Your task to perform on an android device: Open CNN.com Image 0: 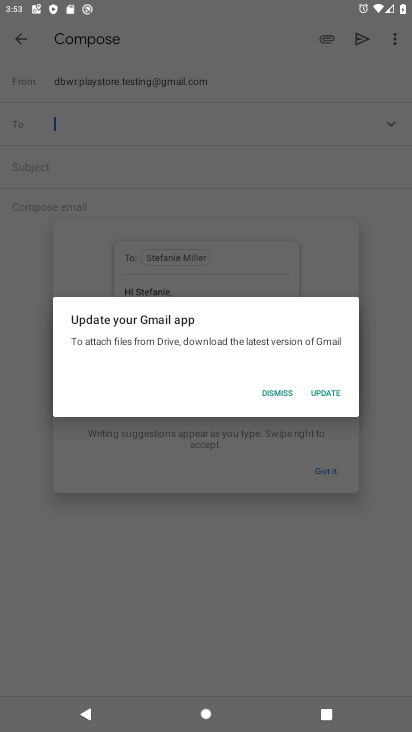
Step 0: press home button
Your task to perform on an android device: Open CNN.com Image 1: 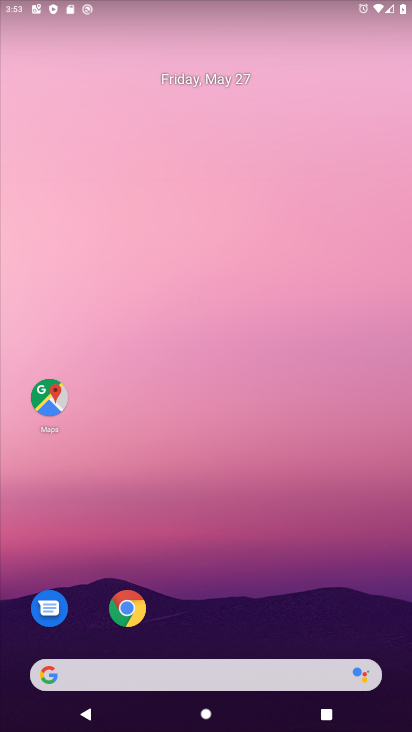
Step 1: drag from (187, 661) to (190, 435)
Your task to perform on an android device: Open CNN.com Image 2: 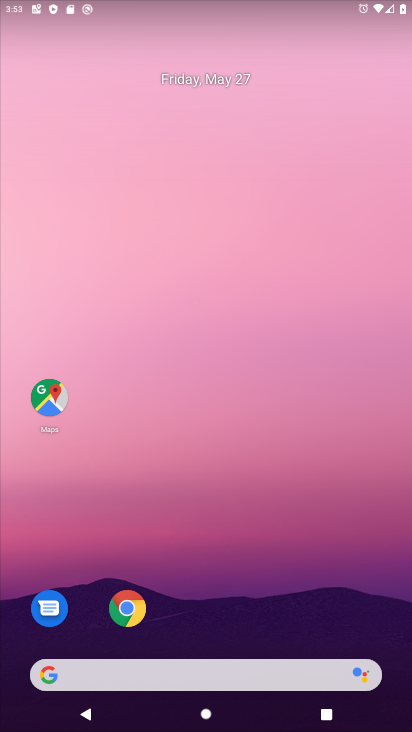
Step 2: drag from (194, 643) to (207, 302)
Your task to perform on an android device: Open CNN.com Image 3: 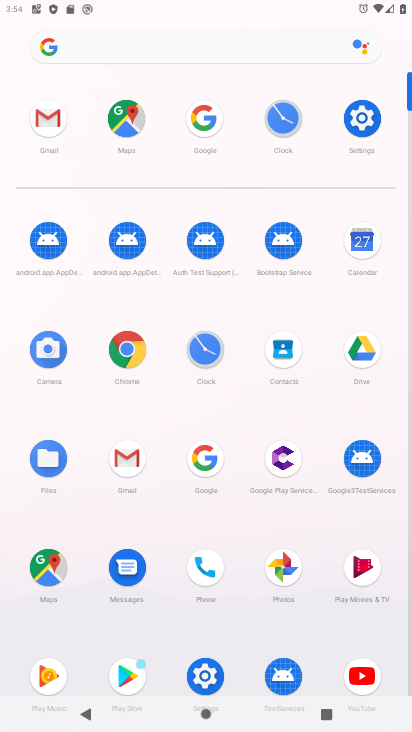
Step 3: click (190, 122)
Your task to perform on an android device: Open CNN.com Image 4: 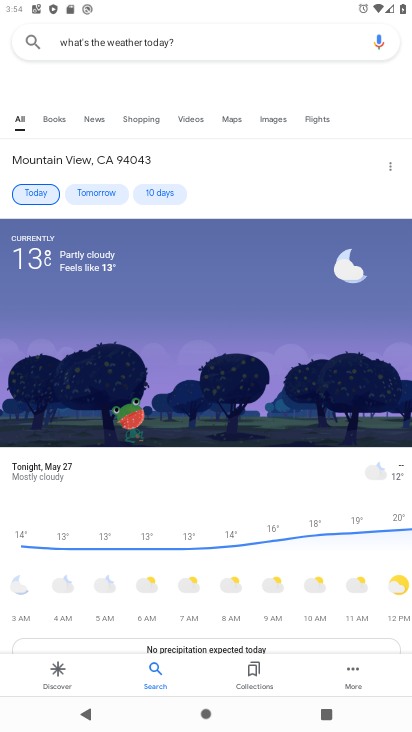
Step 4: drag from (187, 41) to (95, 41)
Your task to perform on an android device: Open CNN.com Image 5: 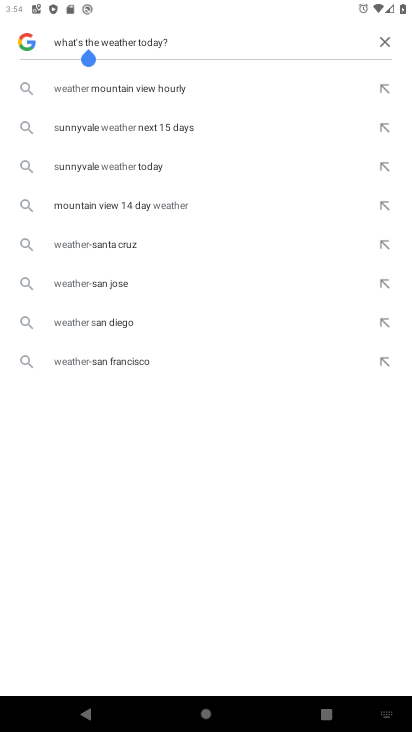
Step 5: click (376, 45)
Your task to perform on an android device: Open CNN.com Image 6: 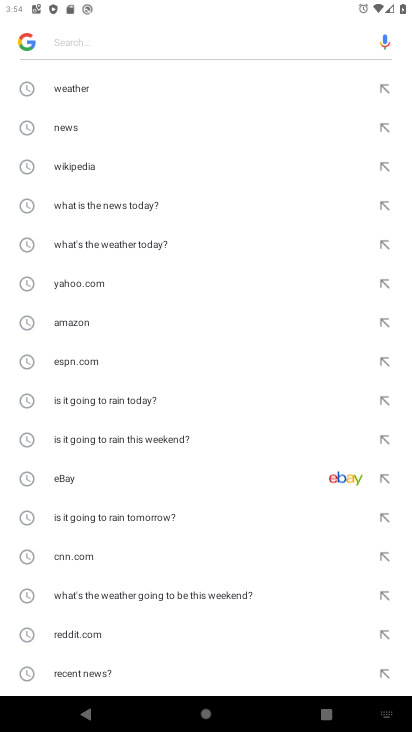
Step 6: click (74, 561)
Your task to perform on an android device: Open CNN.com Image 7: 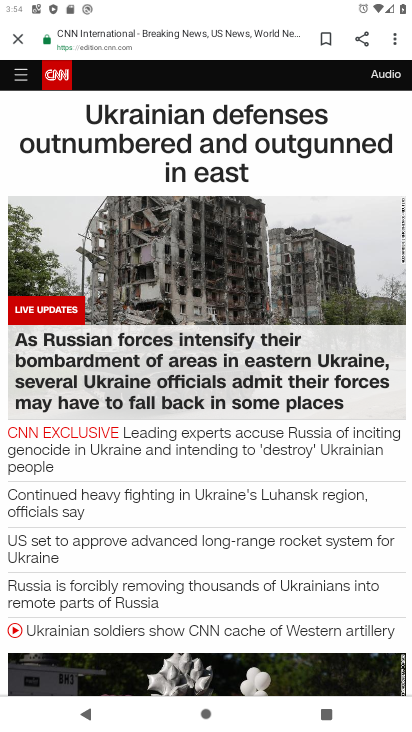
Step 7: task complete